Your task to perform on an android device: Show me popular videos on Youtube Image 0: 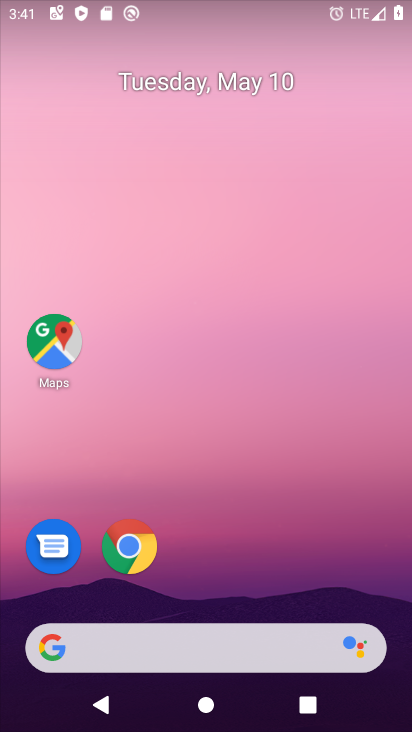
Step 0: drag from (206, 600) to (224, 123)
Your task to perform on an android device: Show me popular videos on Youtube Image 1: 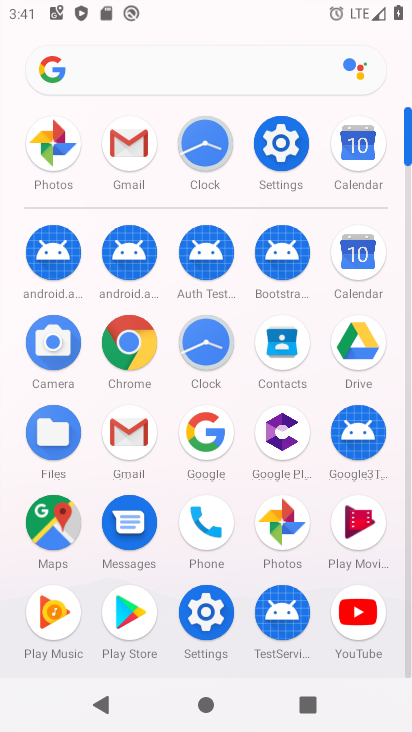
Step 1: click (372, 618)
Your task to perform on an android device: Show me popular videos on Youtube Image 2: 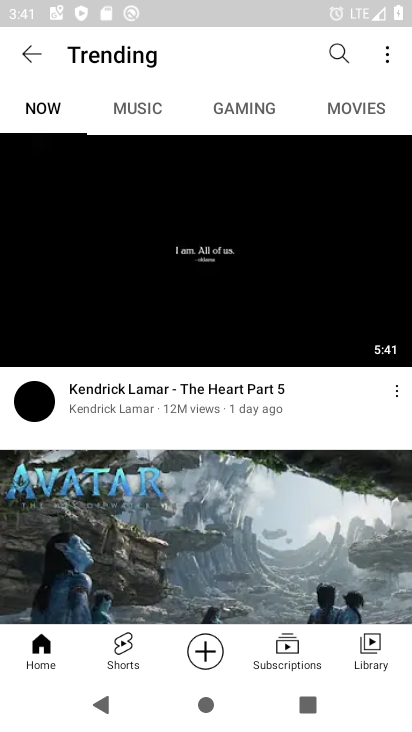
Step 2: task complete